Your task to perform on an android device: Open notification settings Image 0: 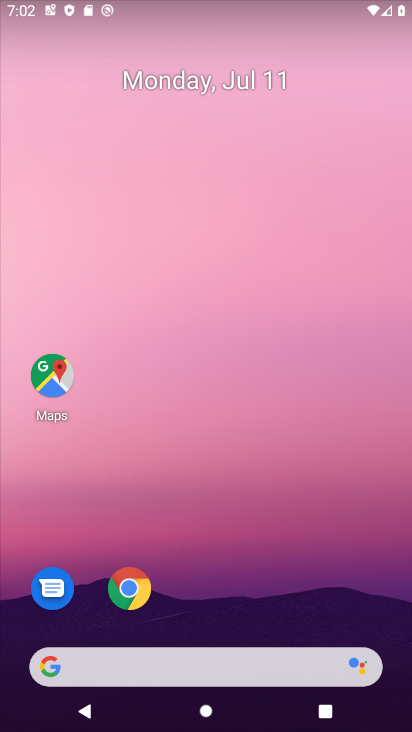
Step 0: drag from (374, 671) to (256, 193)
Your task to perform on an android device: Open notification settings Image 1: 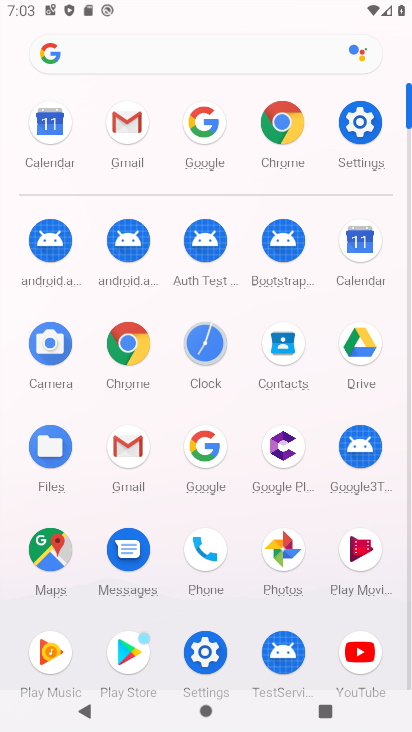
Step 1: click (225, 644)
Your task to perform on an android device: Open notification settings Image 2: 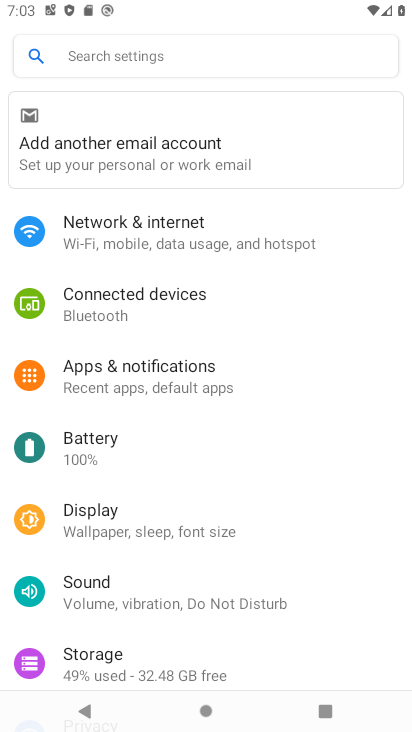
Step 2: click (120, 381)
Your task to perform on an android device: Open notification settings Image 3: 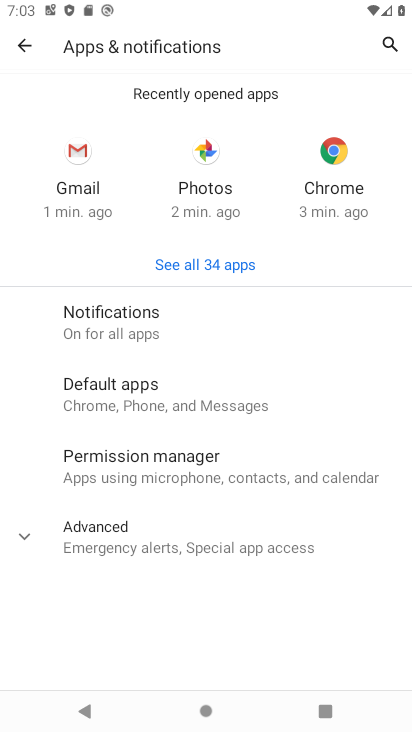
Step 3: click (121, 348)
Your task to perform on an android device: Open notification settings Image 4: 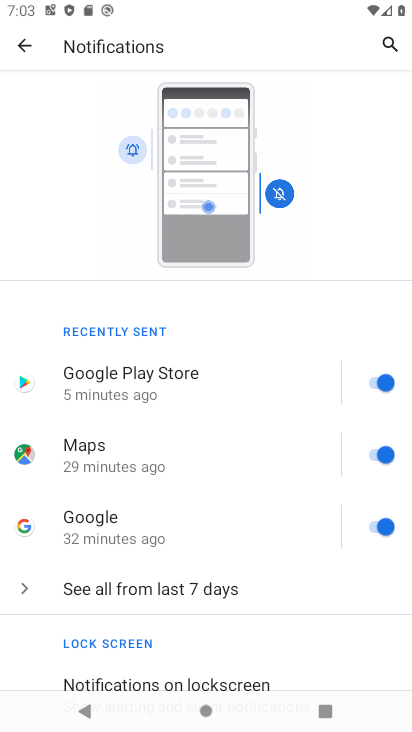
Step 4: task complete